Your task to perform on an android device: Is it going to rain tomorrow? Image 0: 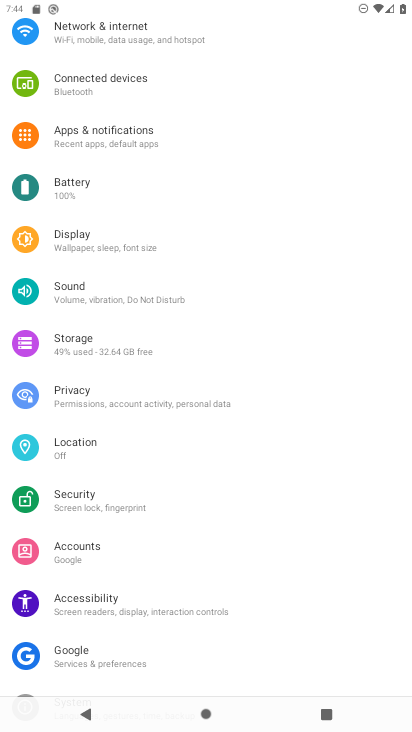
Step 0: press home button
Your task to perform on an android device: Is it going to rain tomorrow? Image 1: 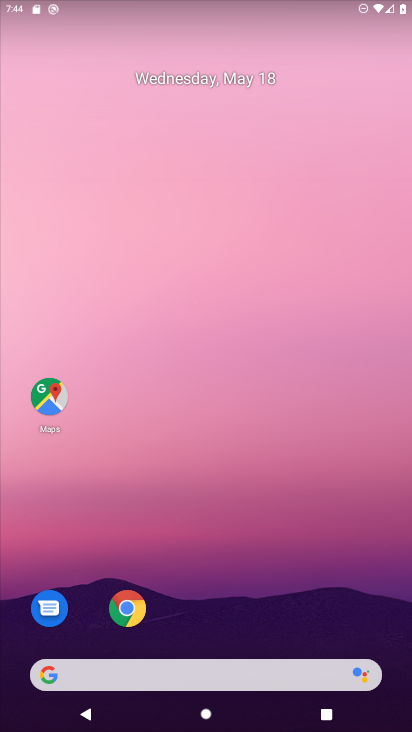
Step 1: drag from (11, 179) to (408, 123)
Your task to perform on an android device: Is it going to rain tomorrow? Image 2: 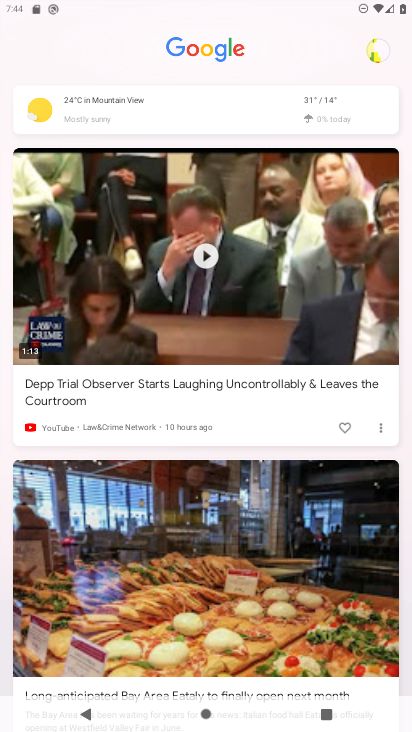
Step 2: click (325, 110)
Your task to perform on an android device: Is it going to rain tomorrow? Image 3: 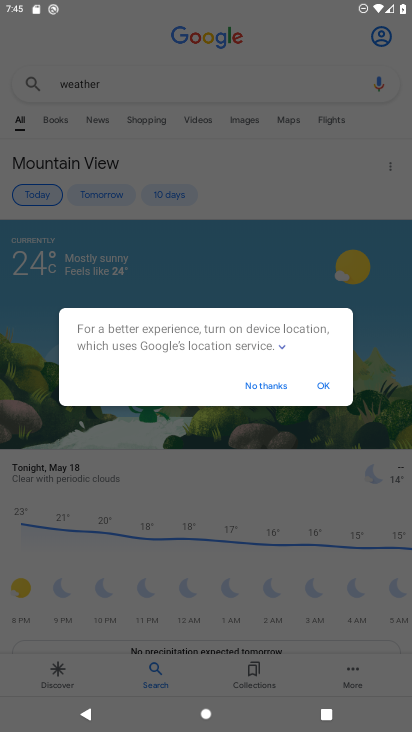
Step 3: click (320, 387)
Your task to perform on an android device: Is it going to rain tomorrow? Image 4: 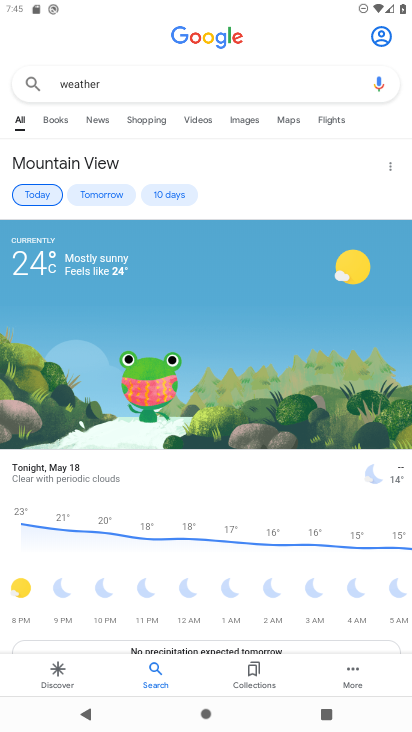
Step 4: click (104, 191)
Your task to perform on an android device: Is it going to rain tomorrow? Image 5: 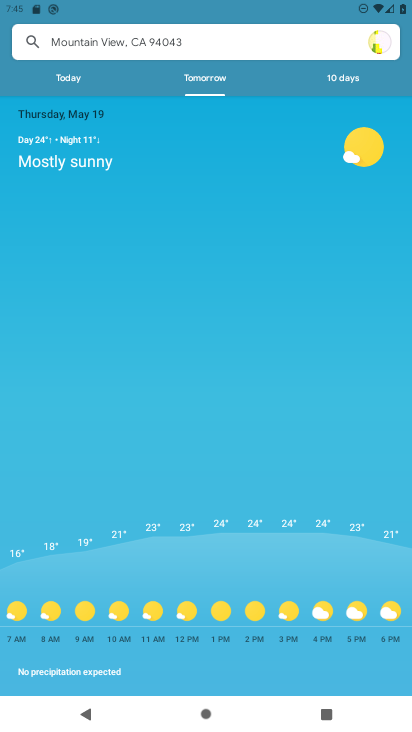
Step 5: task complete